Your task to perform on an android device: Search for Mexican restaurants on Maps Image 0: 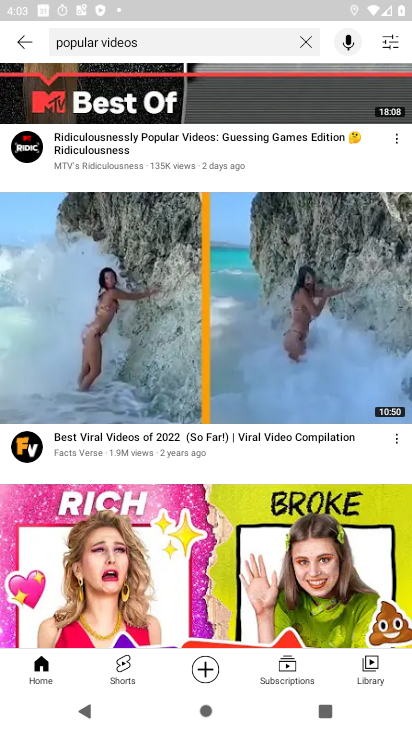
Step 0: press home button
Your task to perform on an android device: Search for Mexican restaurants on Maps Image 1: 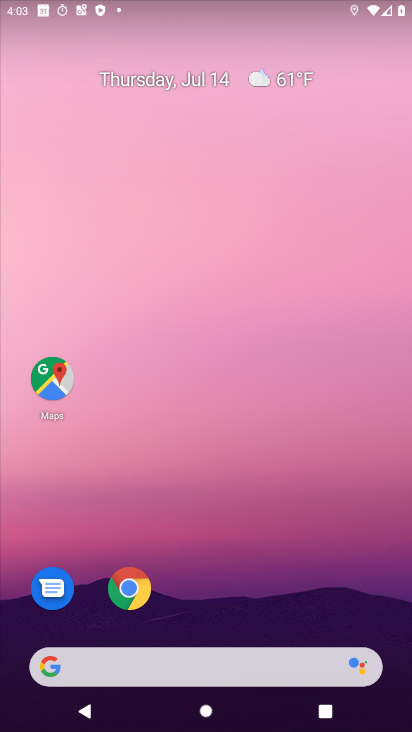
Step 1: click (50, 378)
Your task to perform on an android device: Search for Mexican restaurants on Maps Image 2: 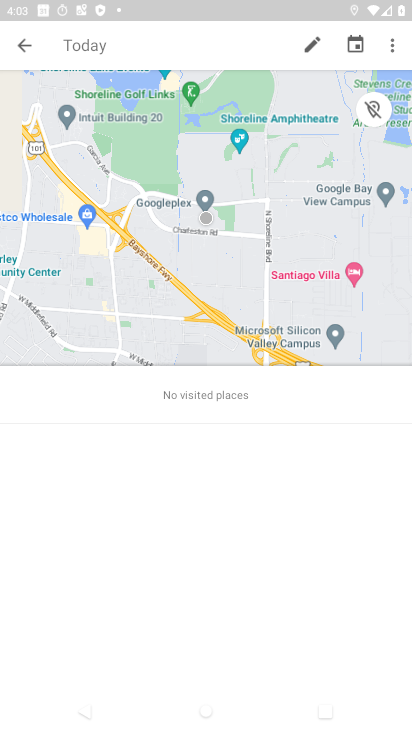
Step 2: press back button
Your task to perform on an android device: Search for Mexican restaurants on Maps Image 3: 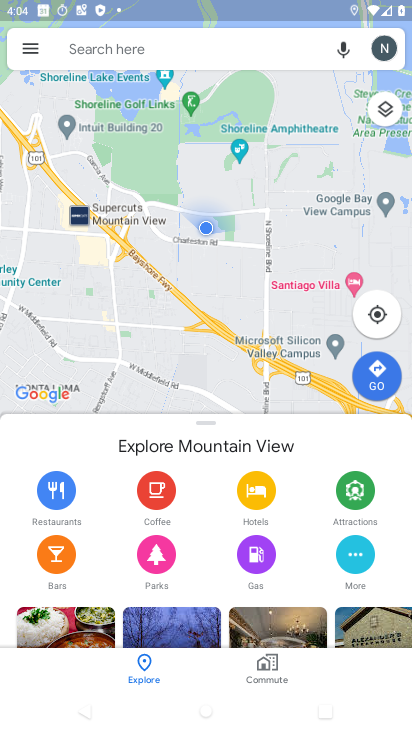
Step 3: click (218, 52)
Your task to perform on an android device: Search for Mexican restaurants on Maps Image 4: 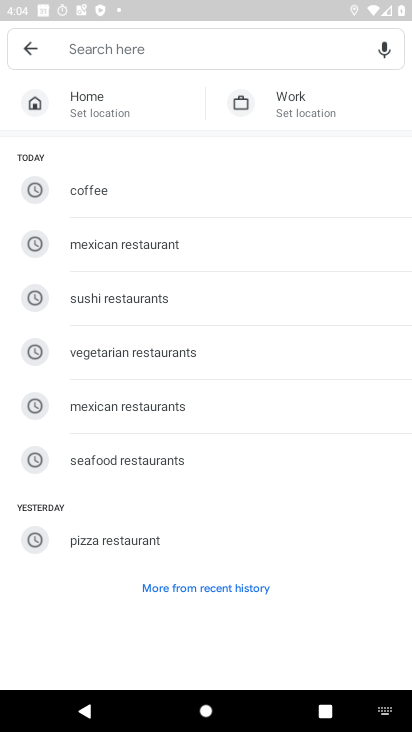
Step 4: type "Mexican restaurants"
Your task to perform on an android device: Search for Mexican restaurants on Maps Image 5: 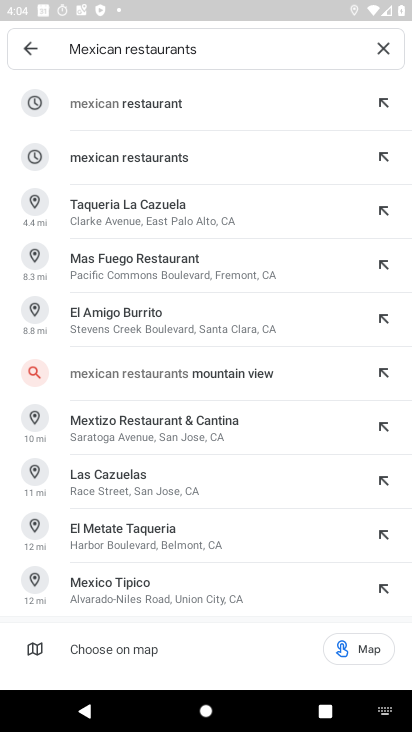
Step 5: click (132, 109)
Your task to perform on an android device: Search for Mexican restaurants on Maps Image 6: 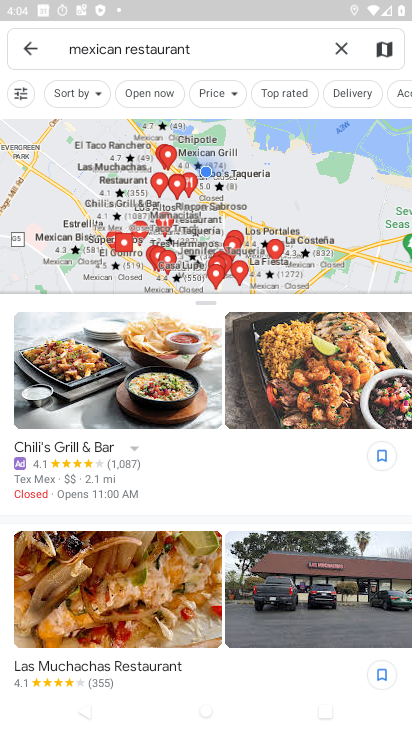
Step 6: task complete